Your task to perform on an android device: Go to CNN.com Image 0: 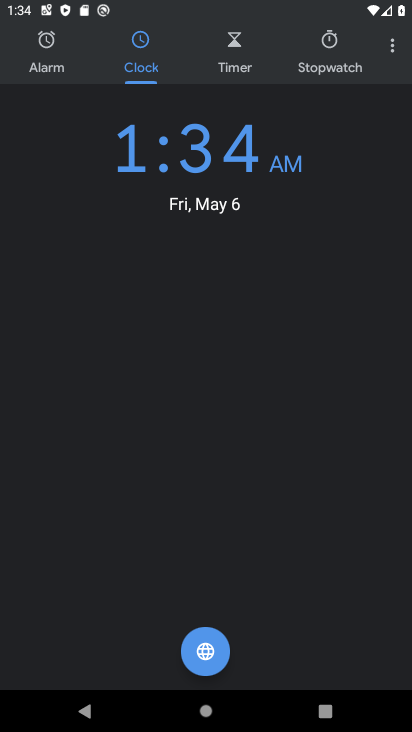
Step 0: press home button
Your task to perform on an android device: Go to CNN.com Image 1: 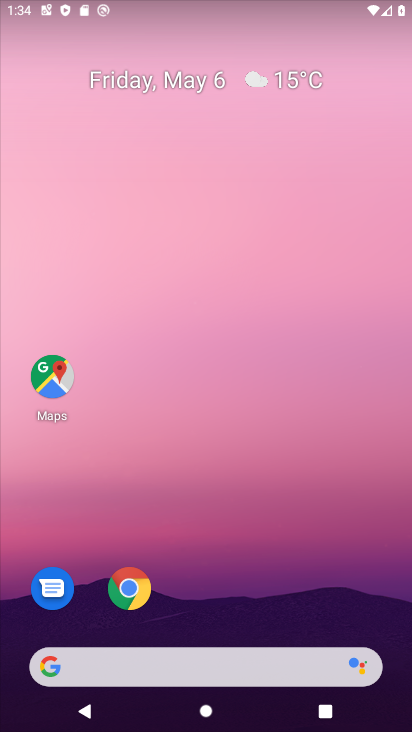
Step 1: drag from (207, 633) to (185, 79)
Your task to perform on an android device: Go to CNN.com Image 2: 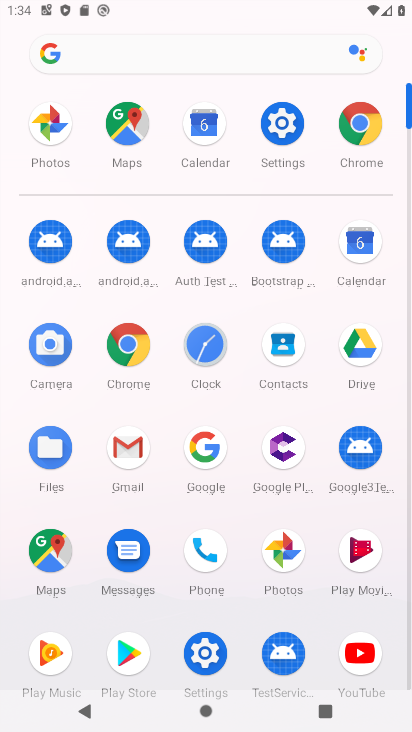
Step 2: click (200, 44)
Your task to perform on an android device: Go to CNN.com Image 3: 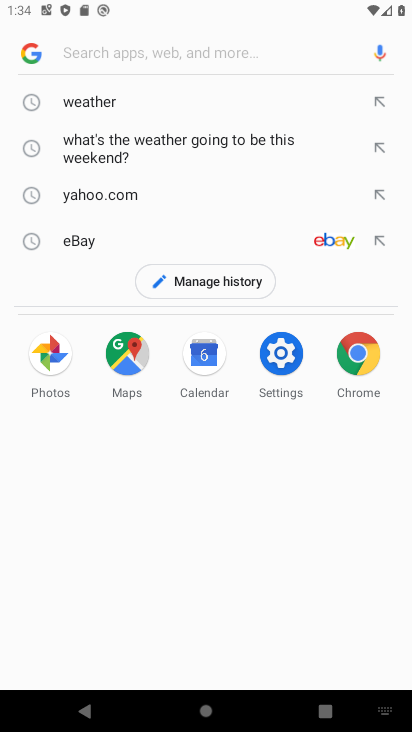
Step 3: type "cnn"
Your task to perform on an android device: Go to CNN.com Image 4: 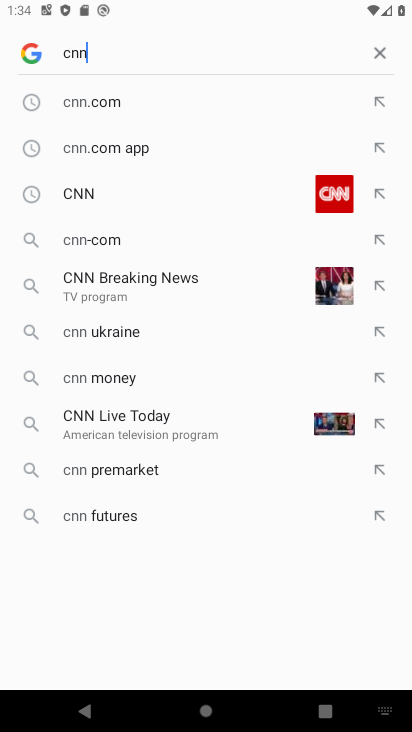
Step 4: click (201, 113)
Your task to perform on an android device: Go to CNN.com Image 5: 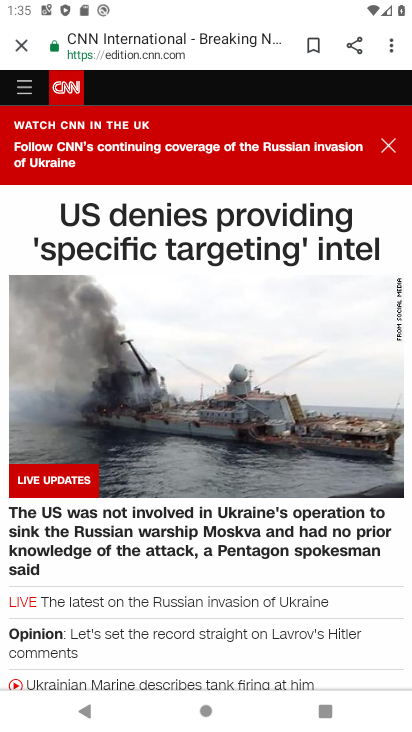
Step 5: task complete